Your task to perform on an android device: read, delete, or share a saved page in the chrome app Image 0: 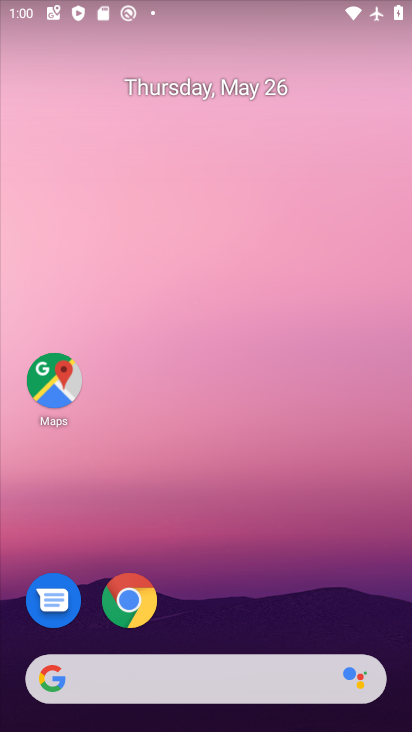
Step 0: drag from (266, 552) to (275, 52)
Your task to perform on an android device: read, delete, or share a saved page in the chrome app Image 1: 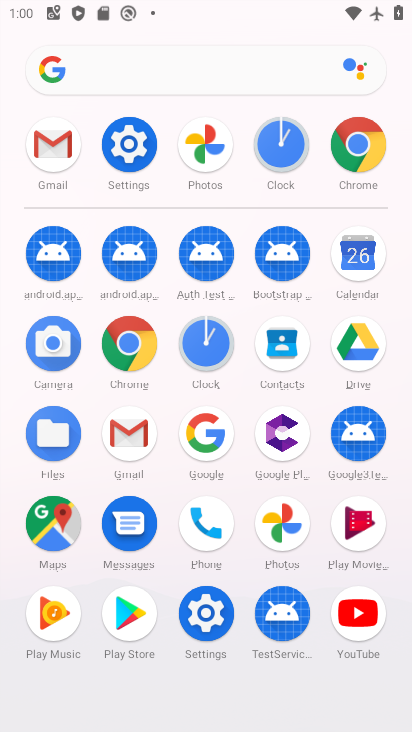
Step 1: click (129, 346)
Your task to perform on an android device: read, delete, or share a saved page in the chrome app Image 2: 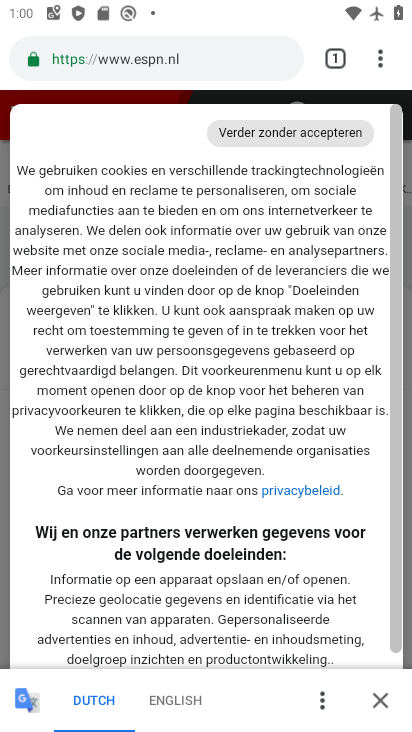
Step 2: task complete